Your task to perform on an android device: Open Google Chrome and click the shortcut for Amazon.com Image 0: 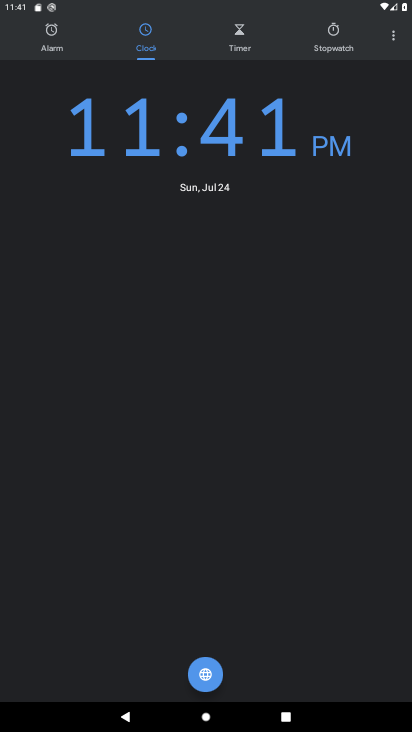
Step 0: press home button
Your task to perform on an android device: Open Google Chrome and click the shortcut for Amazon.com Image 1: 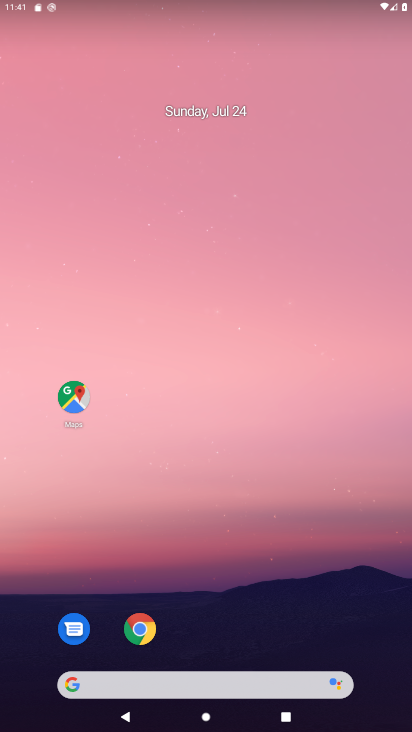
Step 1: click (149, 628)
Your task to perform on an android device: Open Google Chrome and click the shortcut for Amazon.com Image 2: 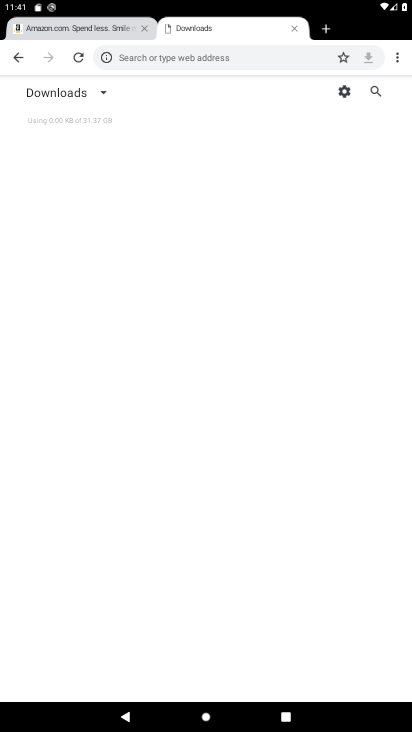
Step 2: click (294, 22)
Your task to perform on an android device: Open Google Chrome and click the shortcut for Amazon.com Image 3: 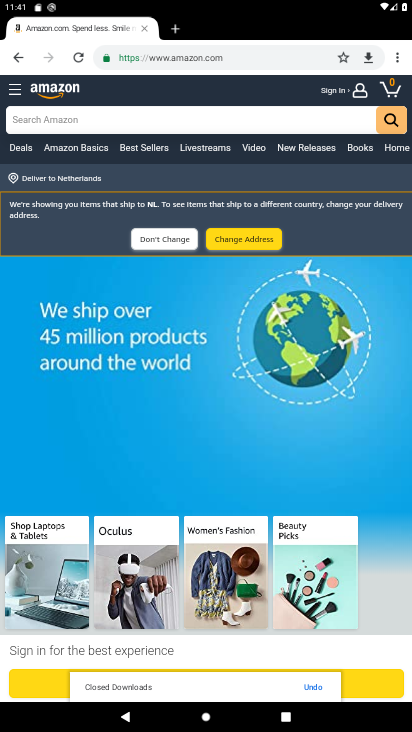
Step 3: click (181, 36)
Your task to perform on an android device: Open Google Chrome and click the shortcut for Amazon.com Image 4: 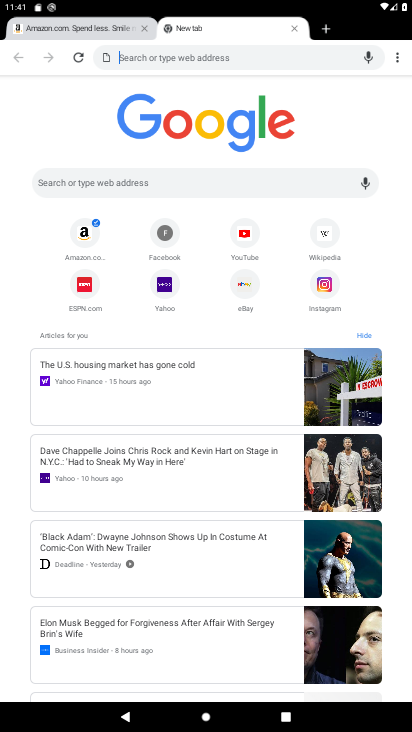
Step 4: click (83, 233)
Your task to perform on an android device: Open Google Chrome and click the shortcut for Amazon.com Image 5: 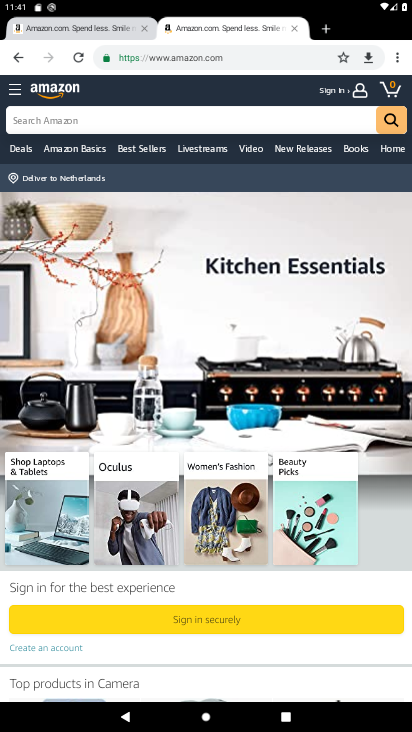
Step 5: task complete